Your task to perform on an android device: Go to wifi settings Image 0: 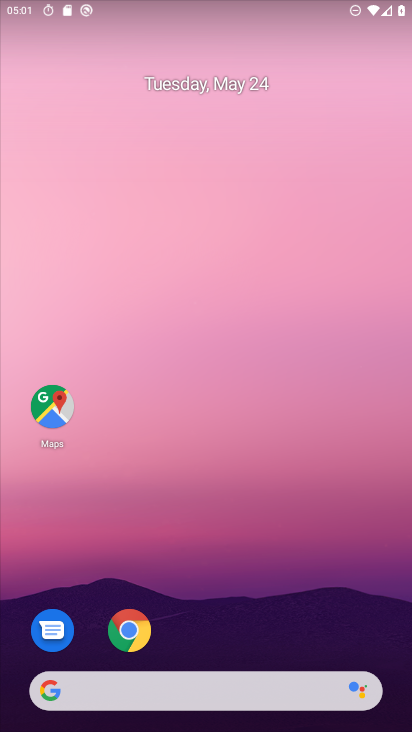
Step 0: drag from (145, 121) to (286, 508)
Your task to perform on an android device: Go to wifi settings Image 1: 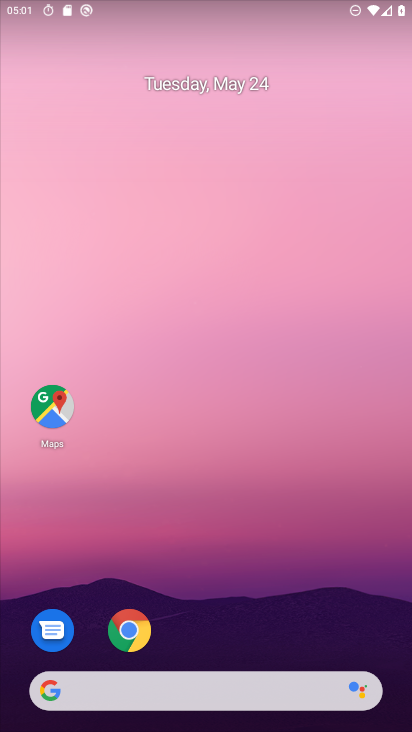
Step 1: drag from (180, 21) to (290, 623)
Your task to perform on an android device: Go to wifi settings Image 2: 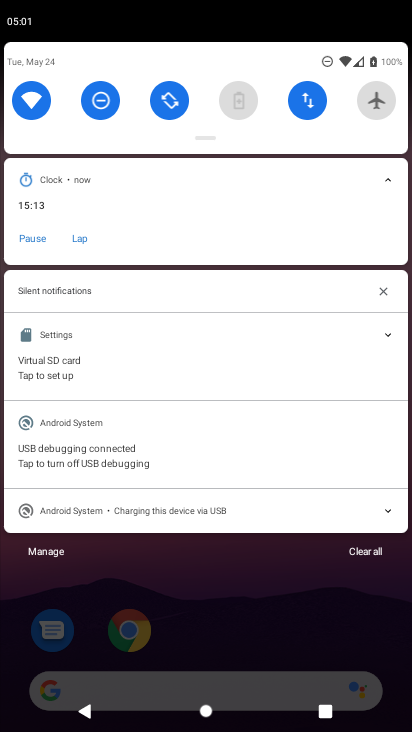
Step 2: drag from (157, 18) to (221, 555)
Your task to perform on an android device: Go to wifi settings Image 3: 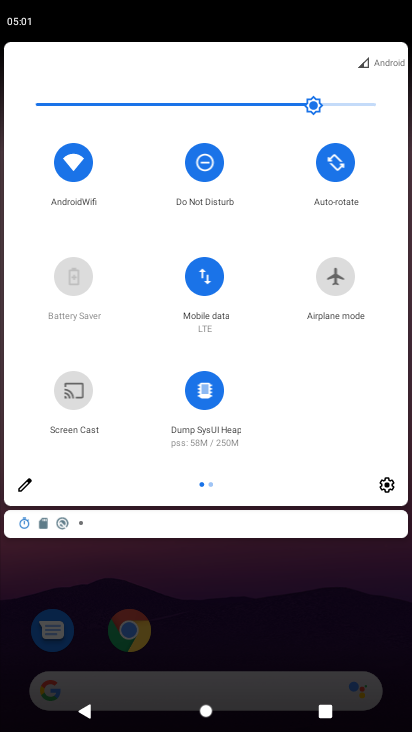
Step 3: drag from (32, 116) to (226, 514)
Your task to perform on an android device: Go to wifi settings Image 4: 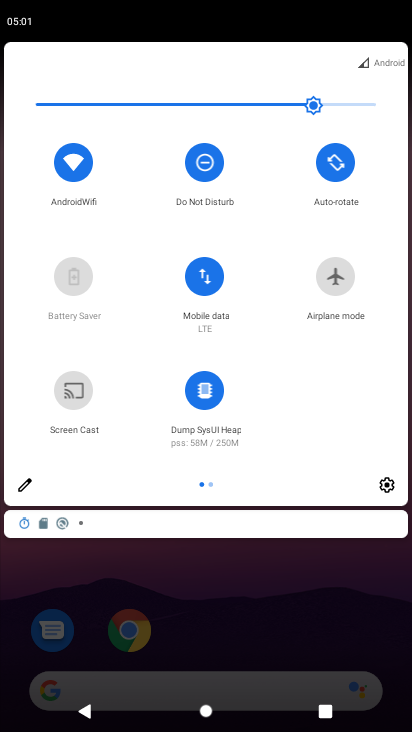
Step 4: click (82, 175)
Your task to perform on an android device: Go to wifi settings Image 5: 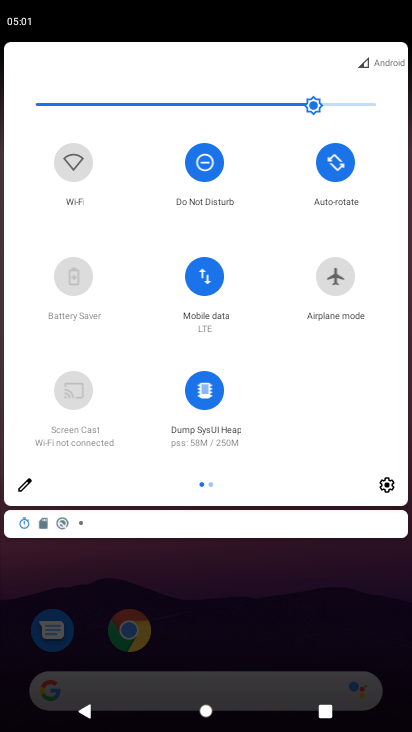
Step 5: click (81, 172)
Your task to perform on an android device: Go to wifi settings Image 6: 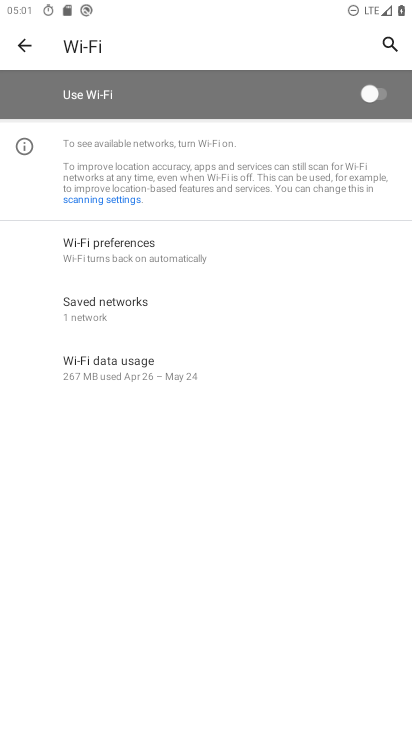
Step 6: click (381, 101)
Your task to perform on an android device: Go to wifi settings Image 7: 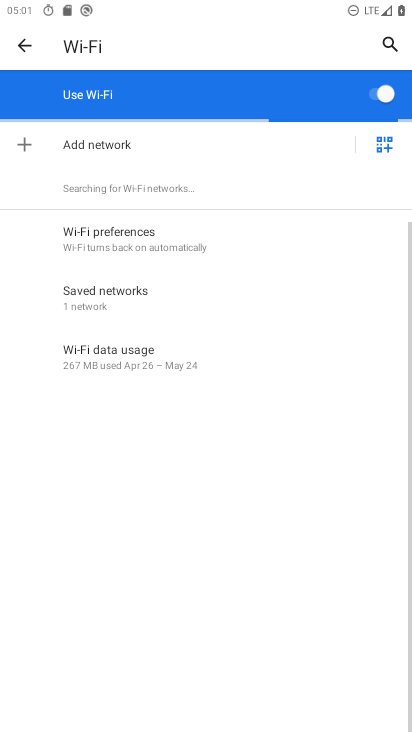
Step 7: task complete